Your task to perform on an android device: toggle improve location accuracy Image 0: 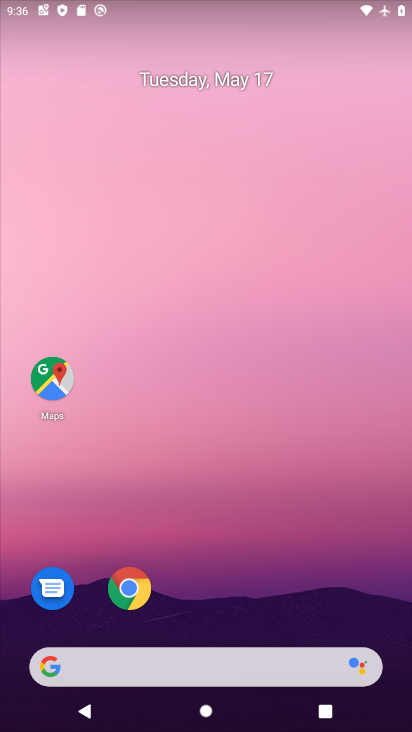
Step 0: drag from (228, 661) to (215, 13)
Your task to perform on an android device: toggle improve location accuracy Image 1: 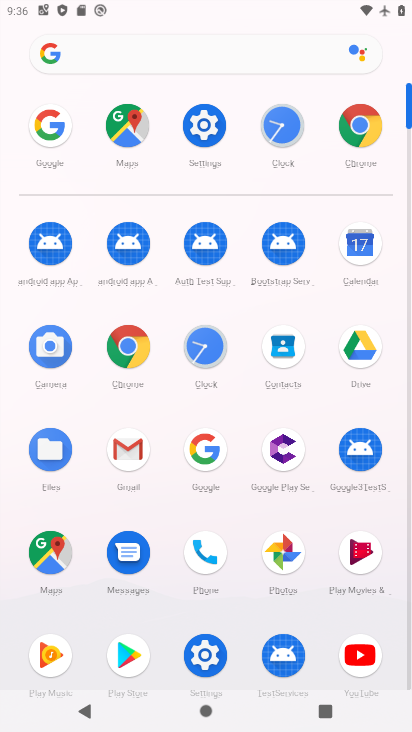
Step 1: click (222, 135)
Your task to perform on an android device: toggle improve location accuracy Image 2: 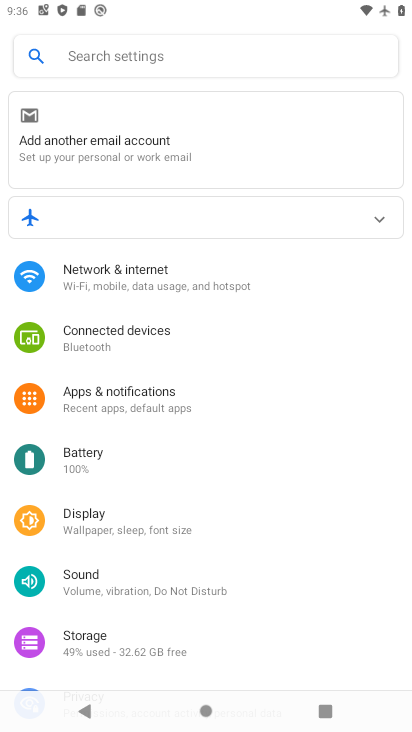
Step 2: drag from (245, 515) to (199, 229)
Your task to perform on an android device: toggle improve location accuracy Image 3: 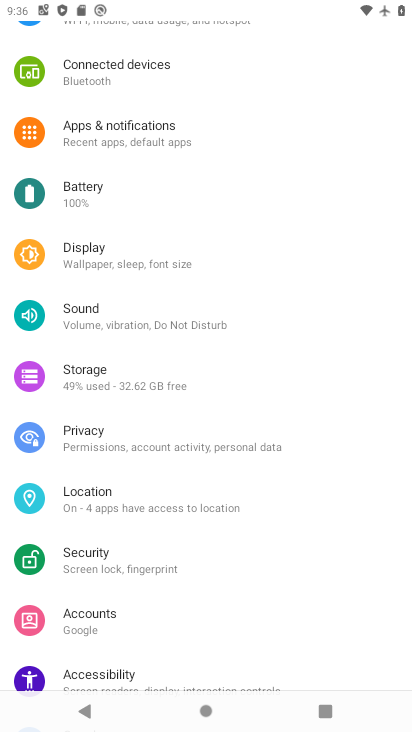
Step 3: click (46, 496)
Your task to perform on an android device: toggle improve location accuracy Image 4: 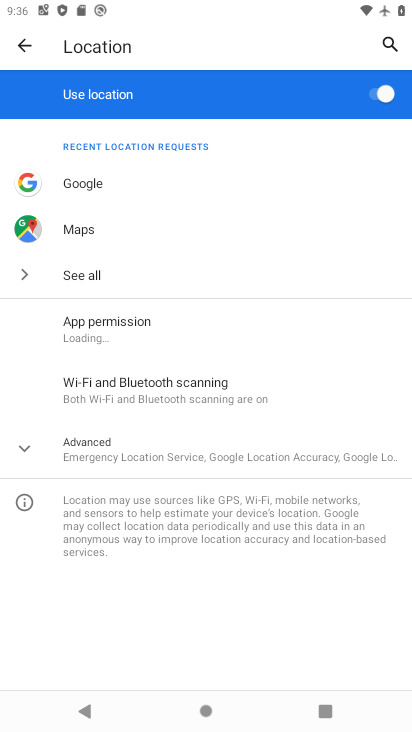
Step 4: click (86, 468)
Your task to perform on an android device: toggle improve location accuracy Image 5: 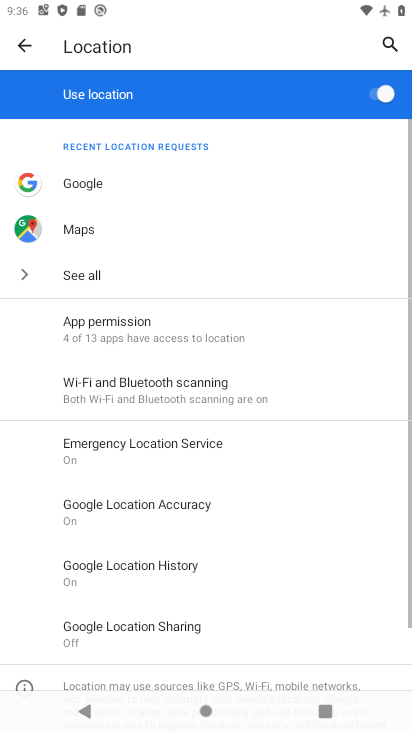
Step 5: click (110, 487)
Your task to perform on an android device: toggle improve location accuracy Image 6: 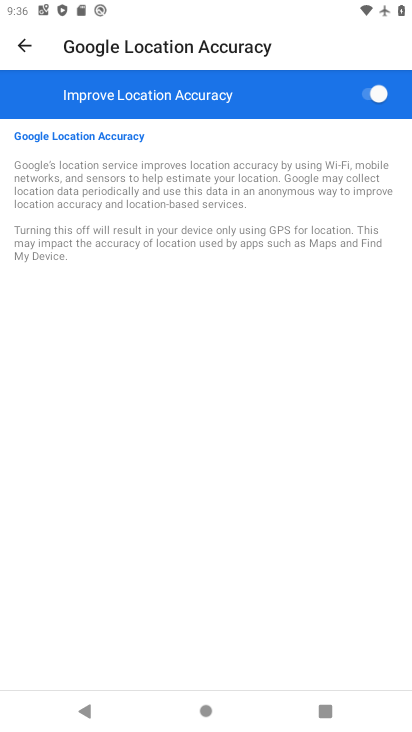
Step 6: click (366, 92)
Your task to perform on an android device: toggle improve location accuracy Image 7: 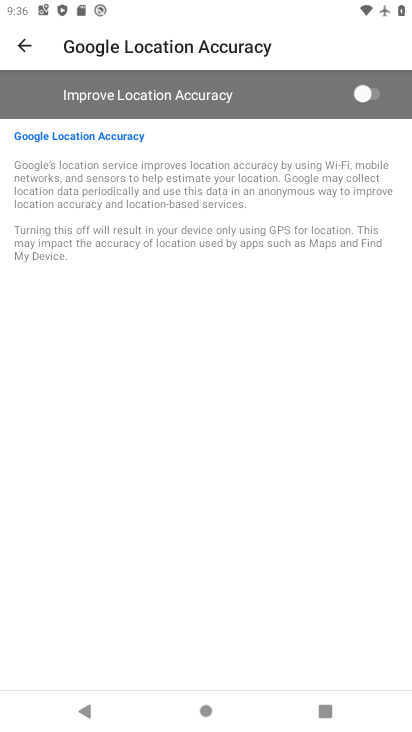
Step 7: task complete